Your task to perform on an android device: Open eBay Image 0: 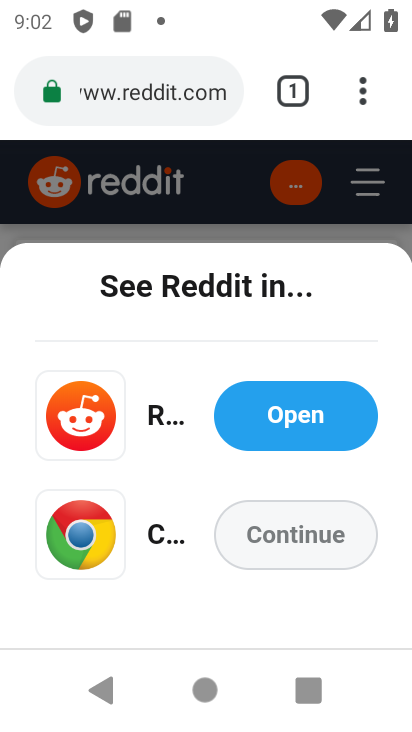
Step 0: press home button
Your task to perform on an android device: Open eBay Image 1: 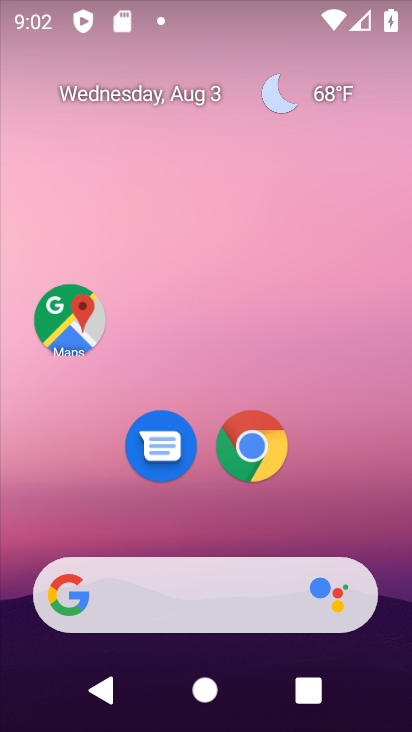
Step 1: click (239, 432)
Your task to perform on an android device: Open eBay Image 2: 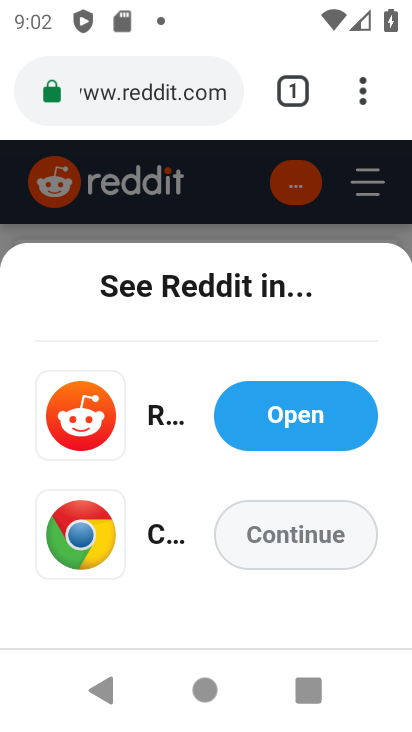
Step 2: click (225, 91)
Your task to perform on an android device: Open eBay Image 3: 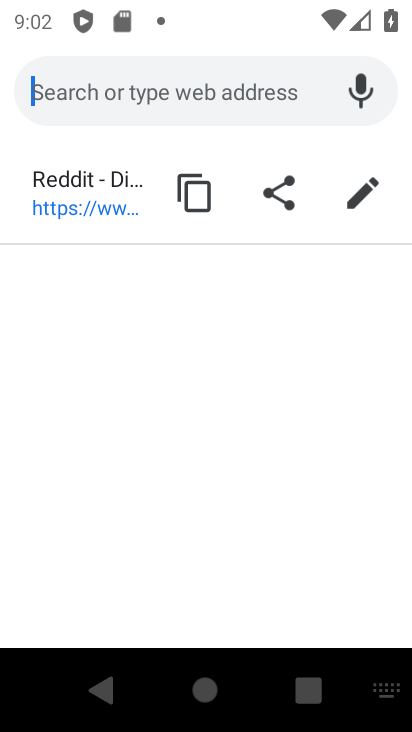
Step 3: type "eBay"
Your task to perform on an android device: Open eBay Image 4: 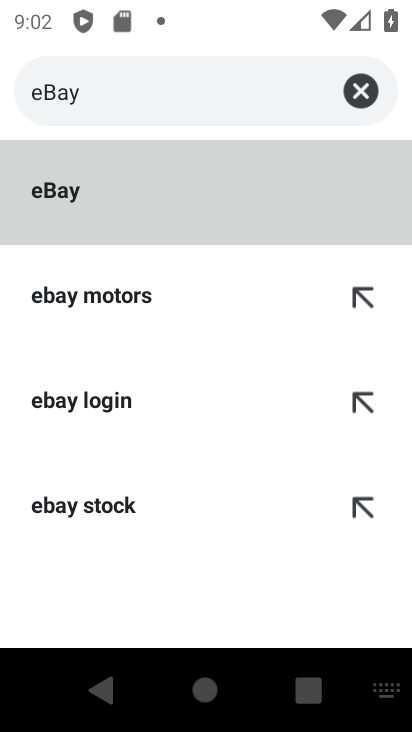
Step 4: click (182, 196)
Your task to perform on an android device: Open eBay Image 5: 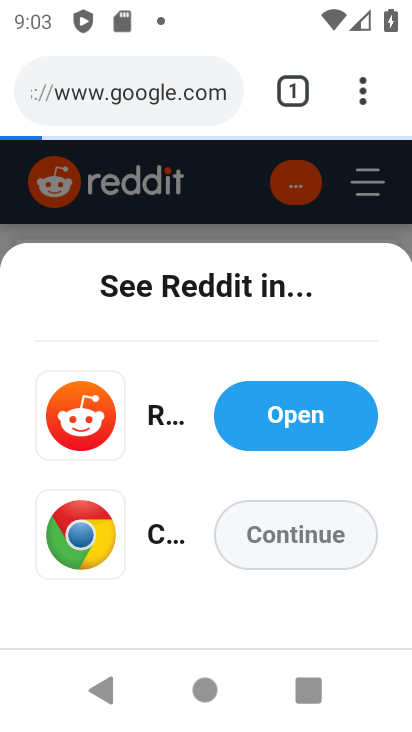
Step 5: click (212, 23)
Your task to perform on an android device: Open eBay Image 6: 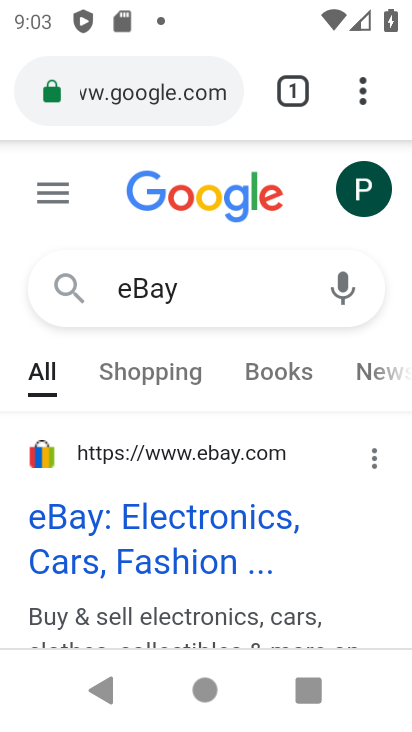
Step 6: drag from (349, 614) to (309, 218)
Your task to perform on an android device: Open eBay Image 7: 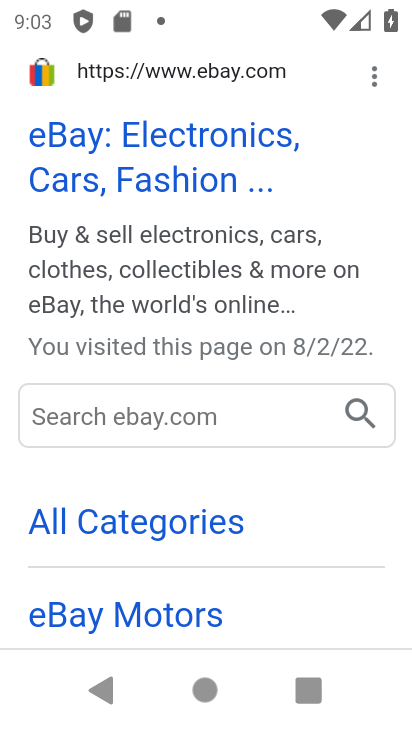
Step 7: drag from (250, 270) to (335, 570)
Your task to perform on an android device: Open eBay Image 8: 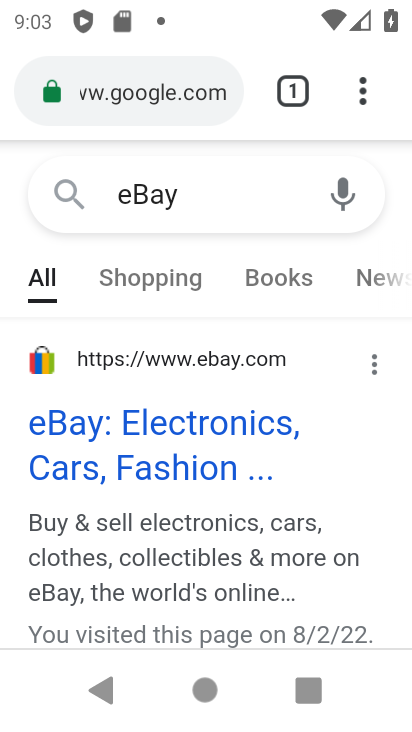
Step 8: click (93, 436)
Your task to perform on an android device: Open eBay Image 9: 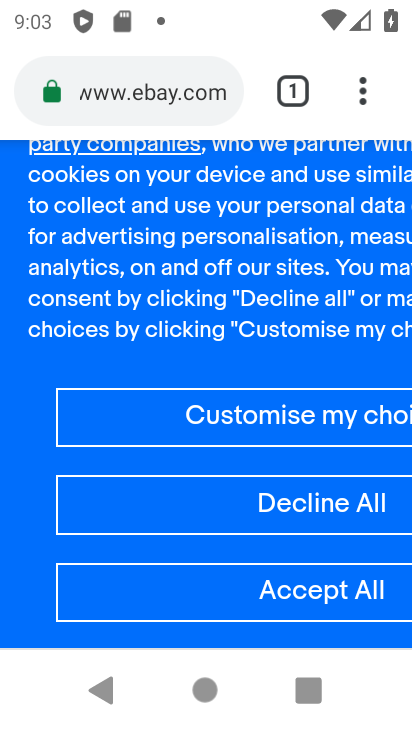
Step 9: task complete